Your task to perform on an android device: Open Google Maps Image 0: 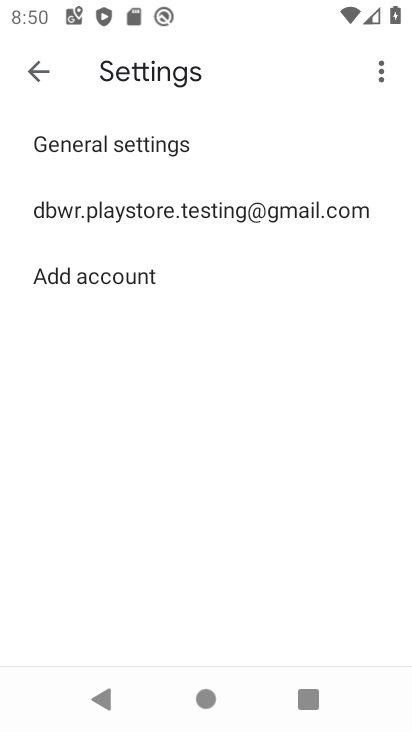
Step 0: press home button
Your task to perform on an android device: Open Google Maps Image 1: 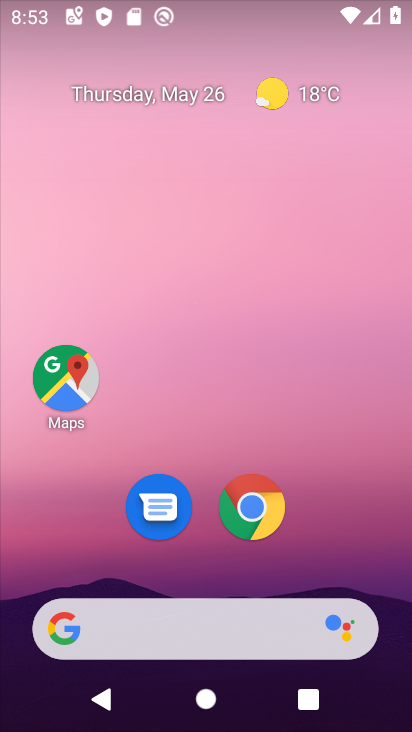
Step 1: drag from (304, 612) to (267, 117)
Your task to perform on an android device: Open Google Maps Image 2: 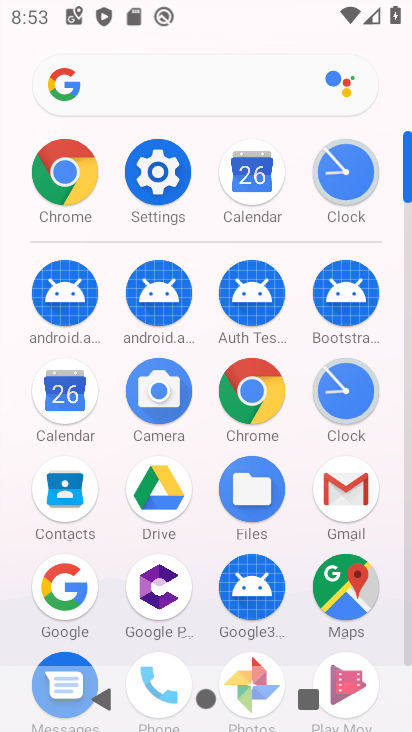
Step 2: click (341, 550)
Your task to perform on an android device: Open Google Maps Image 3: 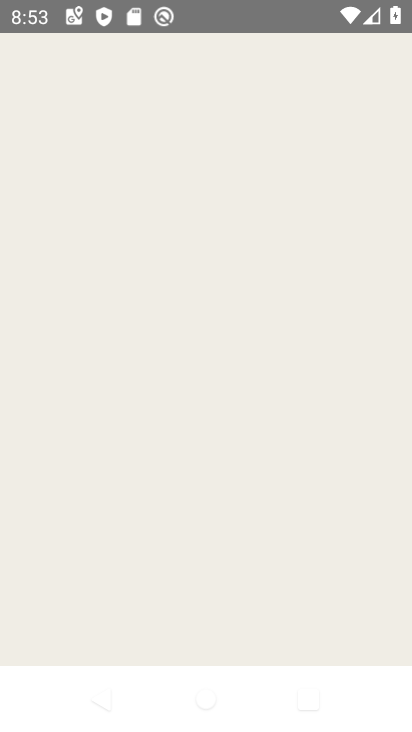
Step 3: task complete